Your task to perform on an android device: toggle data saver in the chrome app Image 0: 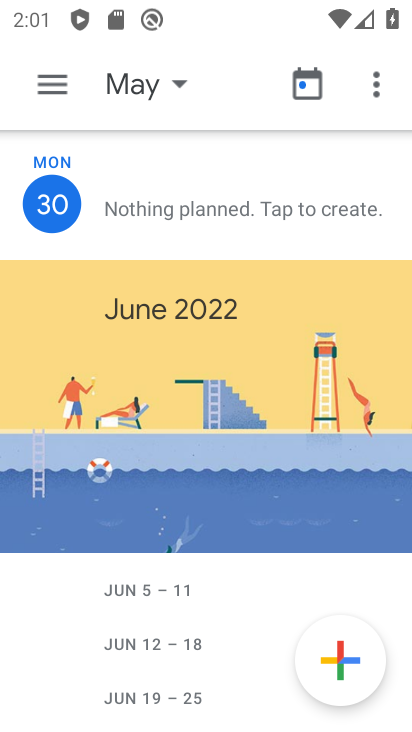
Step 0: press home button
Your task to perform on an android device: toggle data saver in the chrome app Image 1: 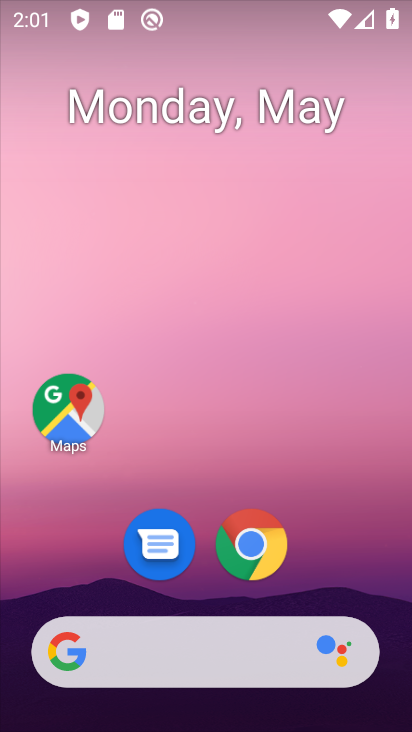
Step 1: click (260, 550)
Your task to perform on an android device: toggle data saver in the chrome app Image 2: 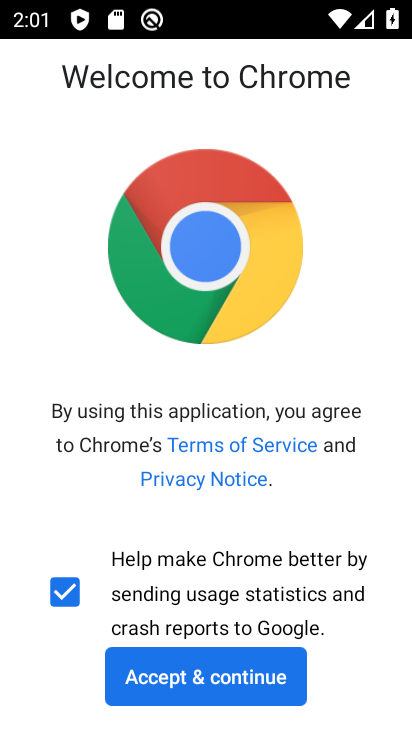
Step 2: click (247, 662)
Your task to perform on an android device: toggle data saver in the chrome app Image 3: 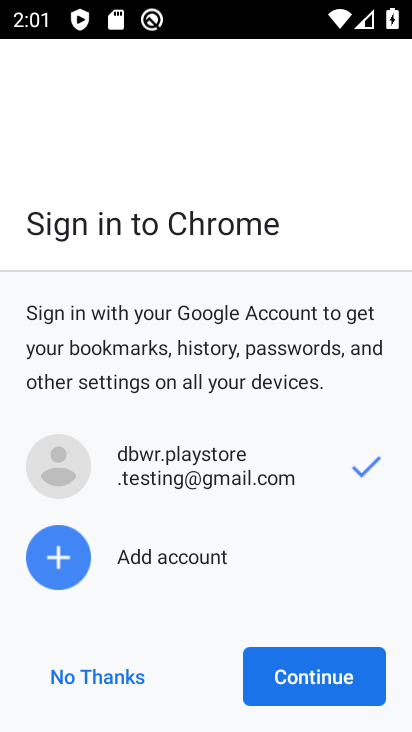
Step 3: click (309, 667)
Your task to perform on an android device: toggle data saver in the chrome app Image 4: 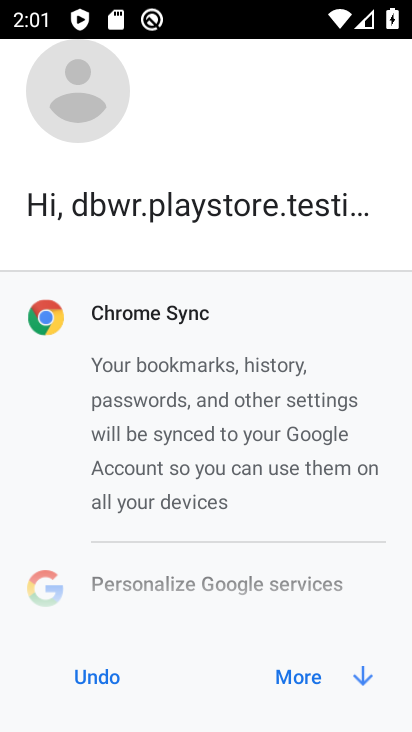
Step 4: click (304, 675)
Your task to perform on an android device: toggle data saver in the chrome app Image 5: 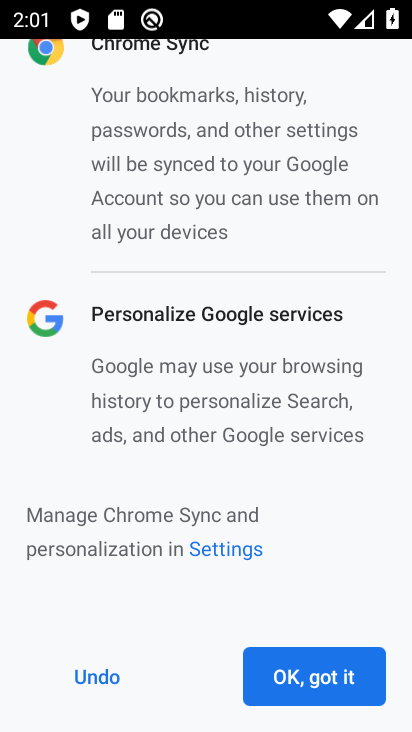
Step 5: click (304, 675)
Your task to perform on an android device: toggle data saver in the chrome app Image 6: 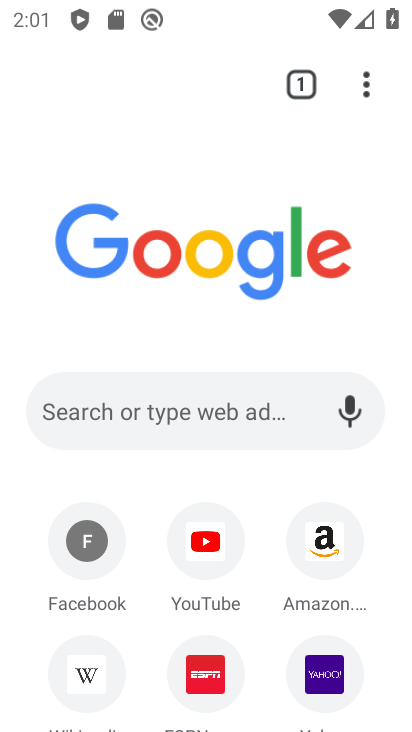
Step 6: drag from (361, 84) to (151, 589)
Your task to perform on an android device: toggle data saver in the chrome app Image 7: 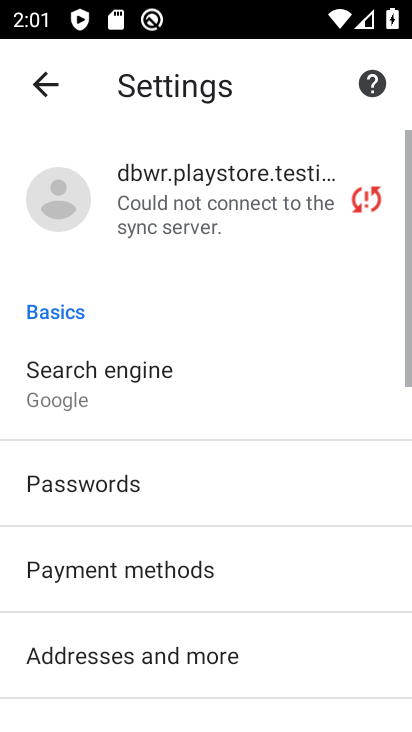
Step 7: drag from (181, 587) to (184, 206)
Your task to perform on an android device: toggle data saver in the chrome app Image 8: 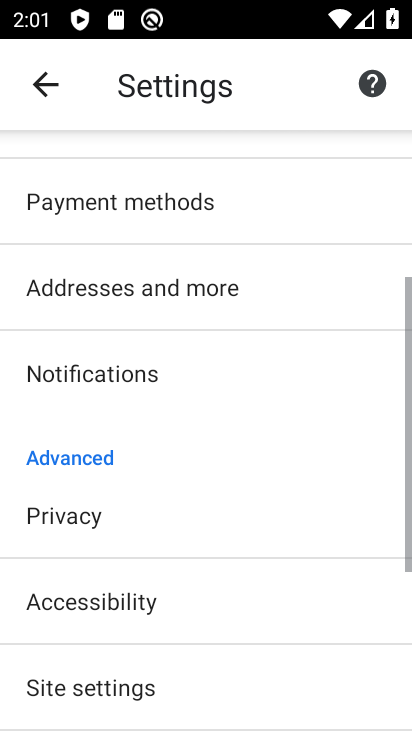
Step 8: drag from (166, 581) to (192, 336)
Your task to perform on an android device: toggle data saver in the chrome app Image 9: 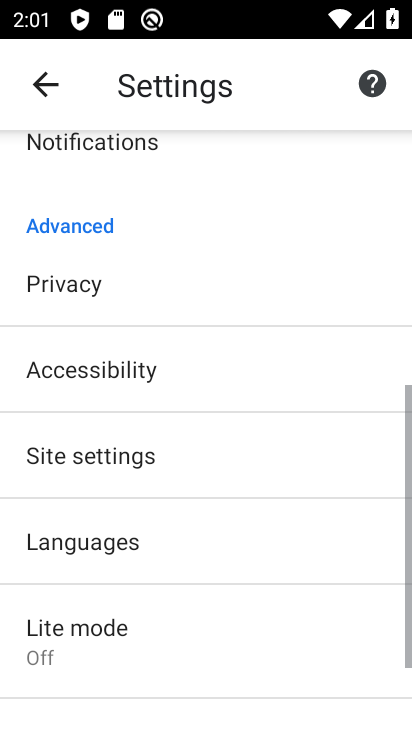
Step 9: drag from (185, 594) to (201, 399)
Your task to perform on an android device: toggle data saver in the chrome app Image 10: 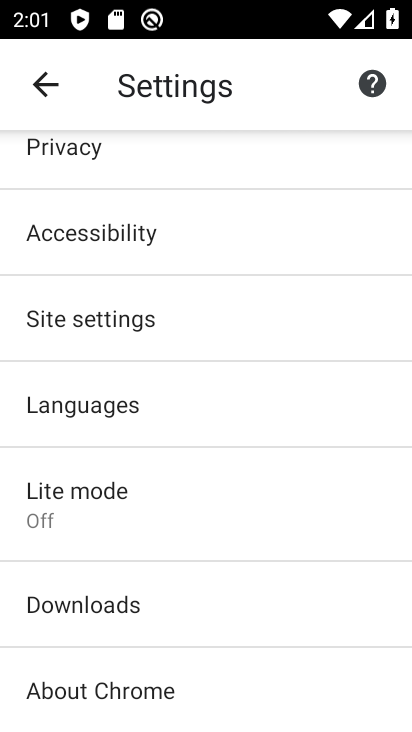
Step 10: drag from (161, 562) to (200, 405)
Your task to perform on an android device: toggle data saver in the chrome app Image 11: 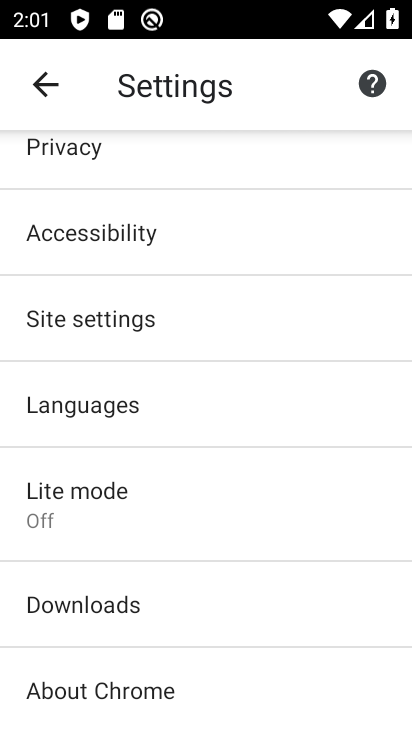
Step 11: click (134, 505)
Your task to perform on an android device: toggle data saver in the chrome app Image 12: 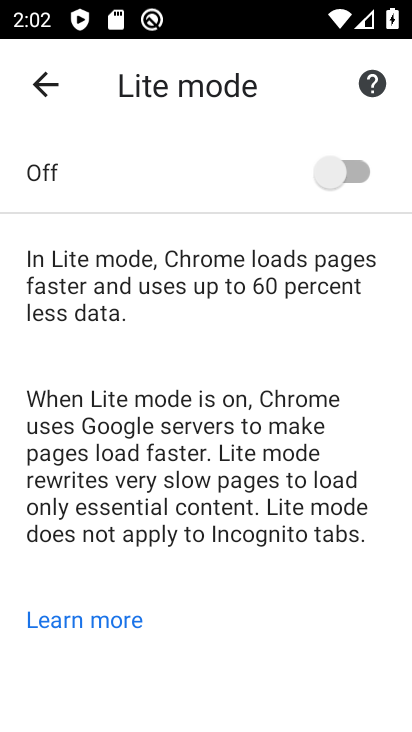
Step 12: click (349, 177)
Your task to perform on an android device: toggle data saver in the chrome app Image 13: 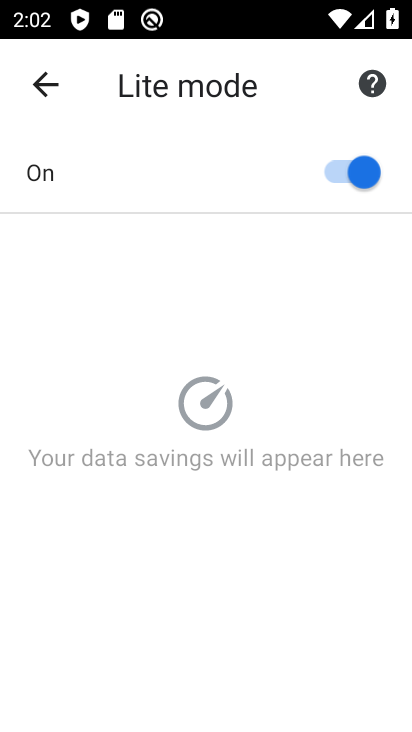
Step 13: task complete